Your task to perform on an android device: Open the calendar and show me this week's events? Image 0: 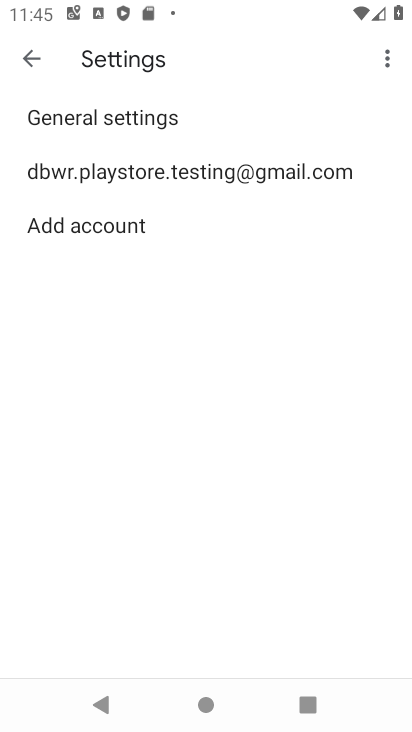
Step 0: press home button
Your task to perform on an android device: Open the calendar and show me this week's events? Image 1: 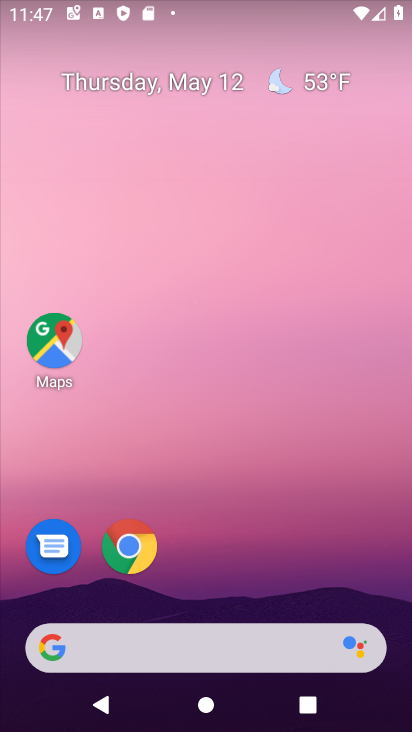
Step 1: drag from (289, 645) to (345, 244)
Your task to perform on an android device: Open the calendar and show me this week's events? Image 2: 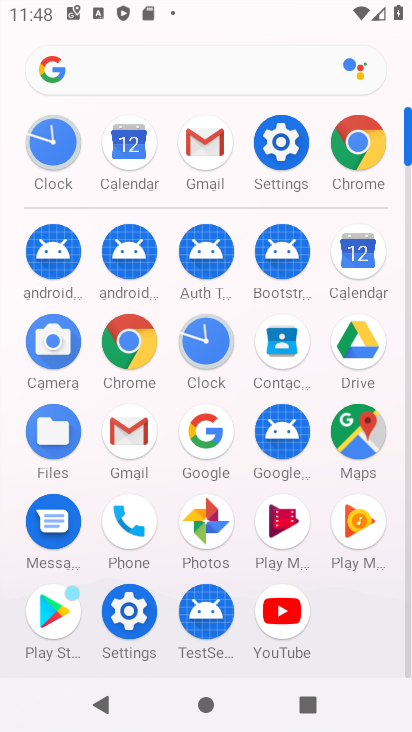
Step 2: click (345, 258)
Your task to perform on an android device: Open the calendar and show me this week's events? Image 3: 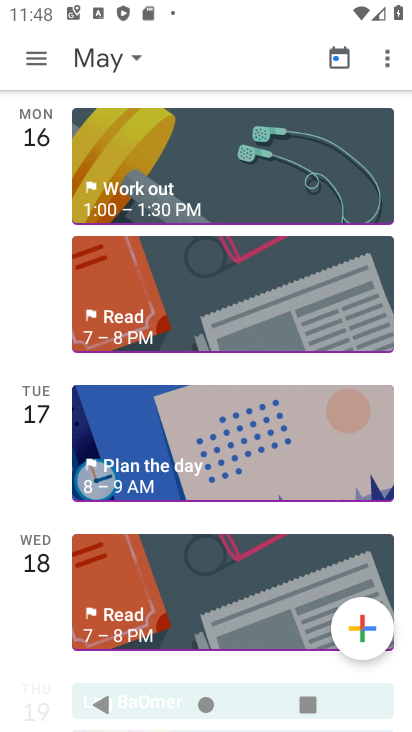
Step 3: click (40, 53)
Your task to perform on an android device: Open the calendar and show me this week's events? Image 4: 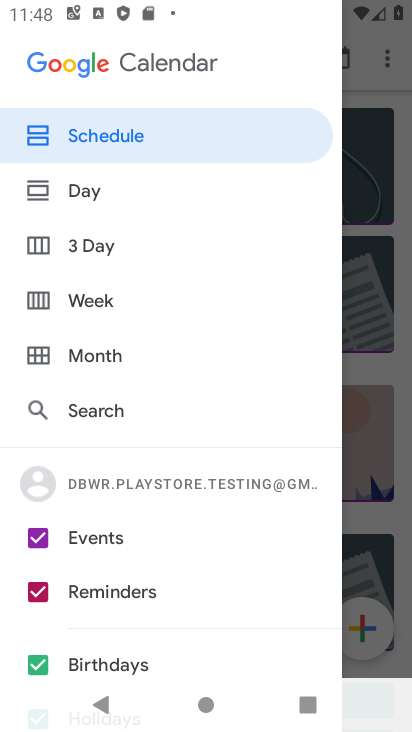
Step 4: click (73, 299)
Your task to perform on an android device: Open the calendar and show me this week's events? Image 5: 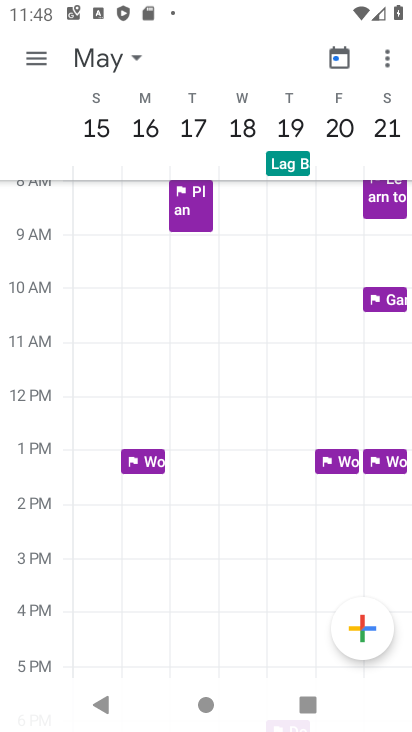
Step 5: task complete